Your task to perform on an android device: open app "Venmo" (install if not already installed) Image 0: 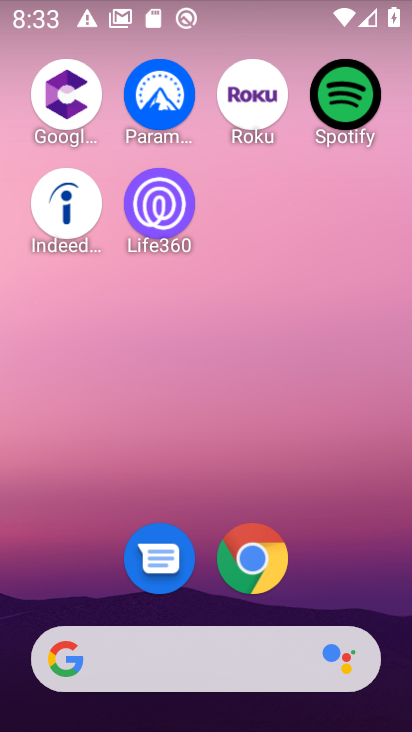
Step 0: drag from (176, 643) to (163, 114)
Your task to perform on an android device: open app "Venmo" (install if not already installed) Image 1: 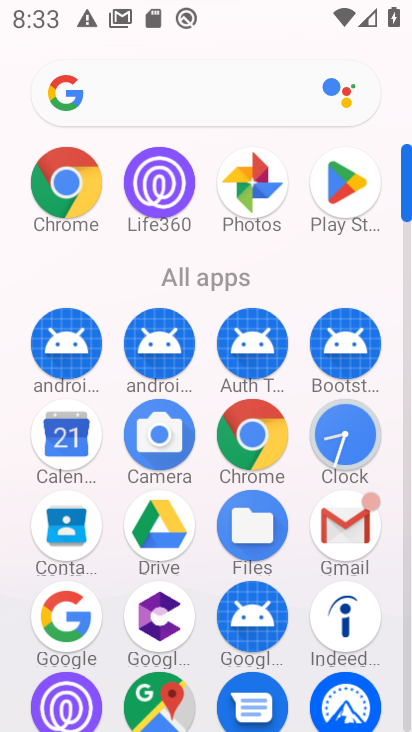
Step 1: click (364, 182)
Your task to perform on an android device: open app "Venmo" (install if not already installed) Image 2: 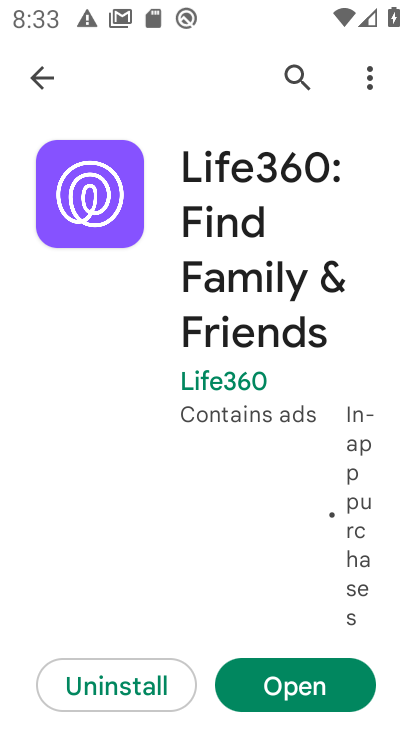
Step 2: click (297, 77)
Your task to perform on an android device: open app "Venmo" (install if not already installed) Image 3: 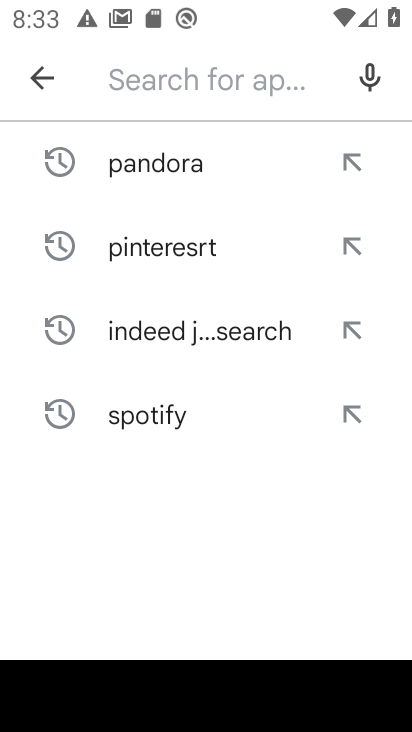
Step 3: type "venmo"
Your task to perform on an android device: open app "Venmo" (install if not already installed) Image 4: 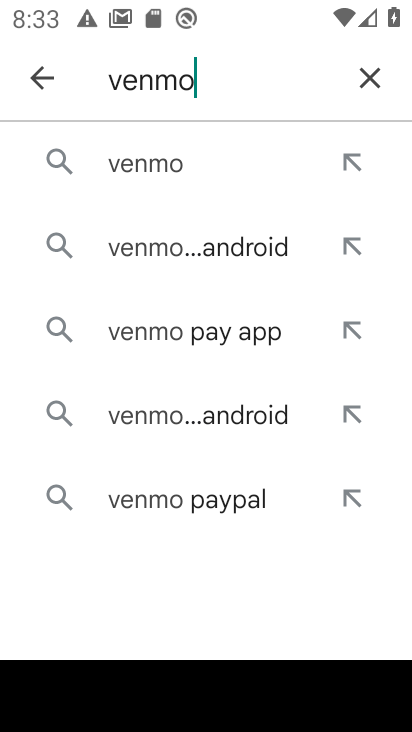
Step 4: click (116, 146)
Your task to perform on an android device: open app "Venmo" (install if not already installed) Image 5: 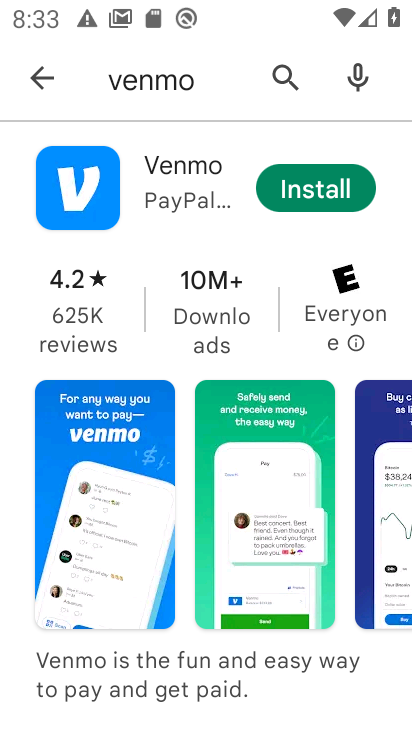
Step 5: click (277, 194)
Your task to perform on an android device: open app "Venmo" (install if not already installed) Image 6: 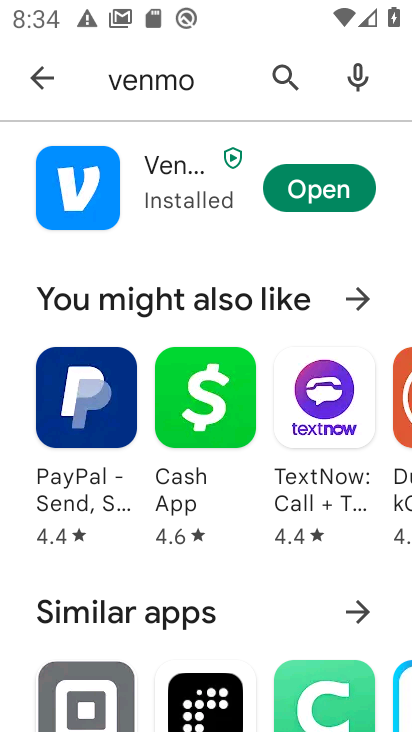
Step 6: click (286, 193)
Your task to perform on an android device: open app "Venmo" (install if not already installed) Image 7: 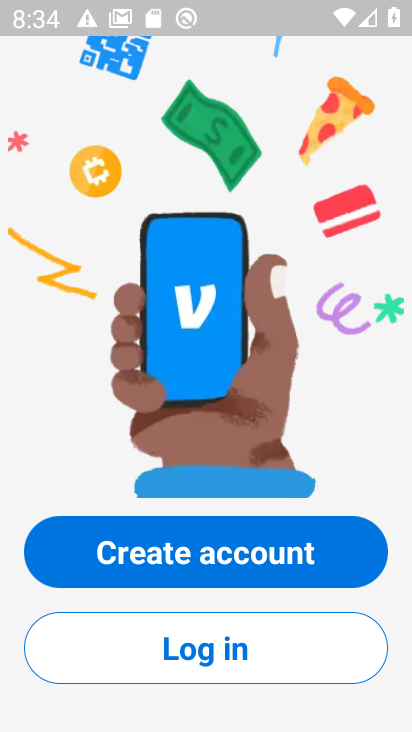
Step 7: task complete